Your task to perform on an android device: turn pop-ups off in chrome Image 0: 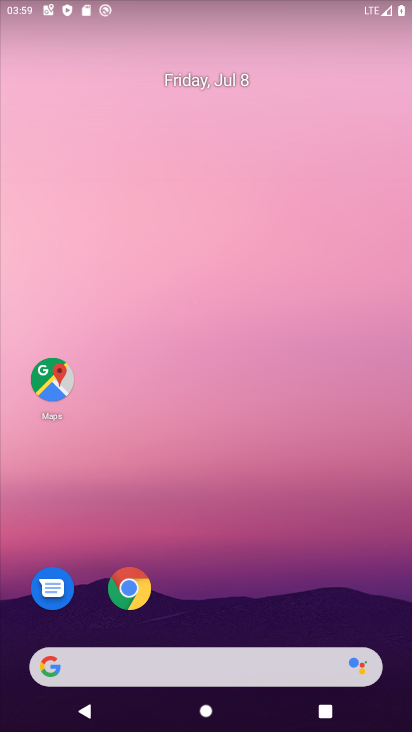
Step 0: drag from (176, 486) to (197, 83)
Your task to perform on an android device: turn pop-ups off in chrome Image 1: 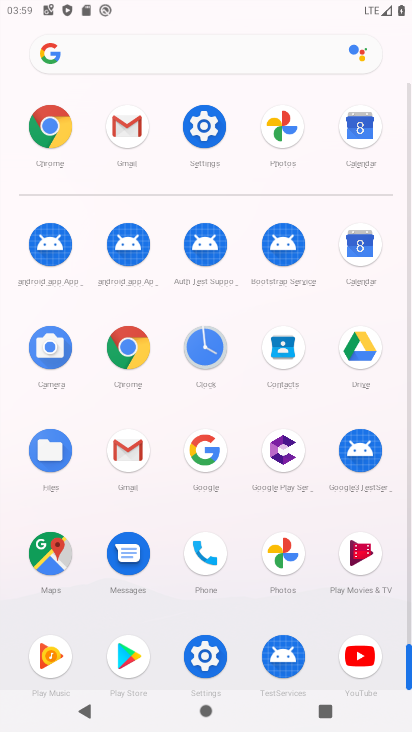
Step 1: click (134, 357)
Your task to perform on an android device: turn pop-ups off in chrome Image 2: 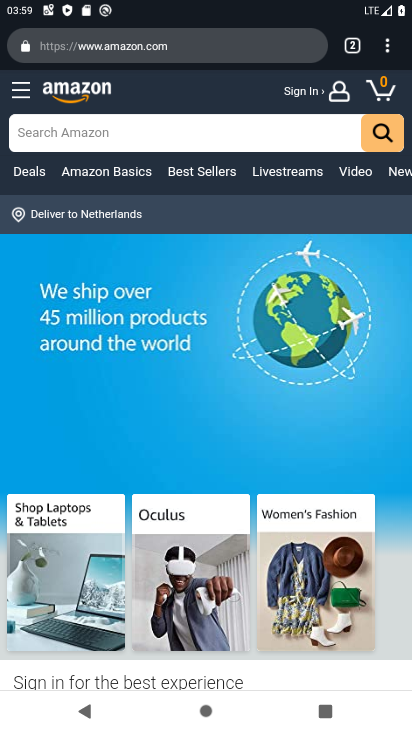
Step 2: click (388, 46)
Your task to perform on an android device: turn pop-ups off in chrome Image 3: 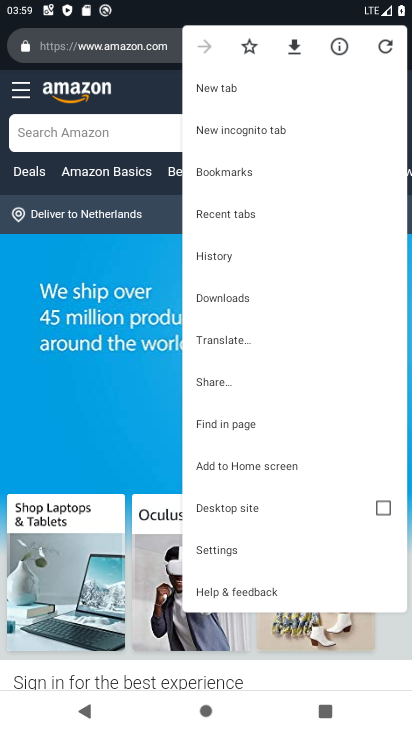
Step 3: click (234, 547)
Your task to perform on an android device: turn pop-ups off in chrome Image 4: 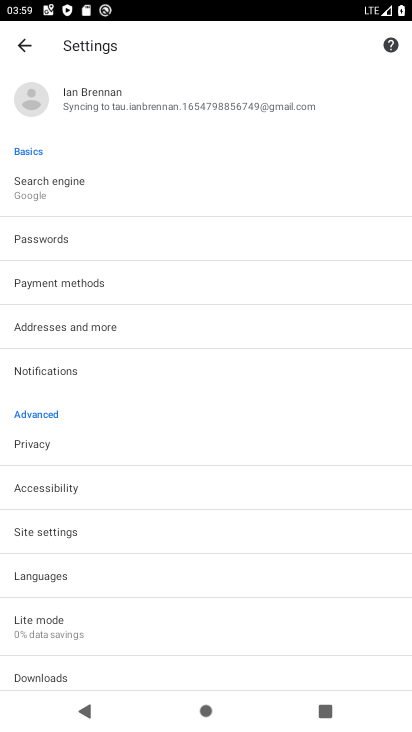
Step 4: click (61, 527)
Your task to perform on an android device: turn pop-ups off in chrome Image 5: 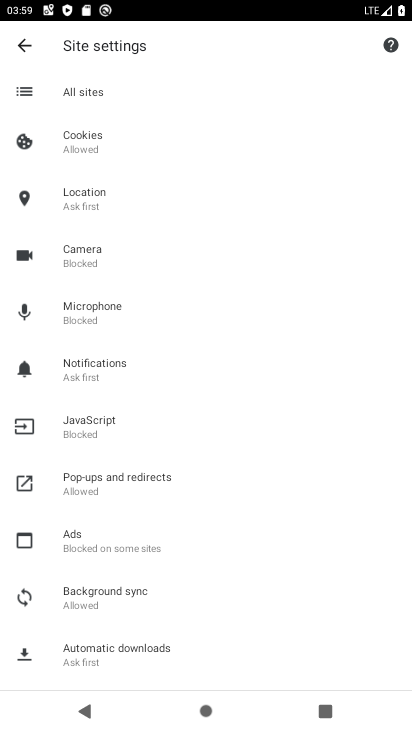
Step 5: click (93, 493)
Your task to perform on an android device: turn pop-ups off in chrome Image 6: 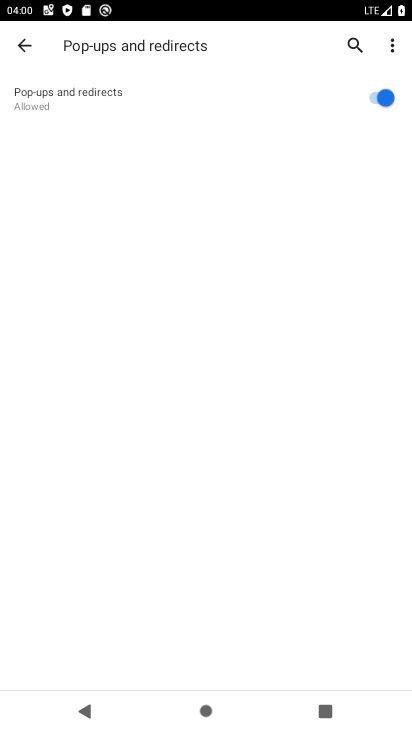
Step 6: click (381, 101)
Your task to perform on an android device: turn pop-ups off in chrome Image 7: 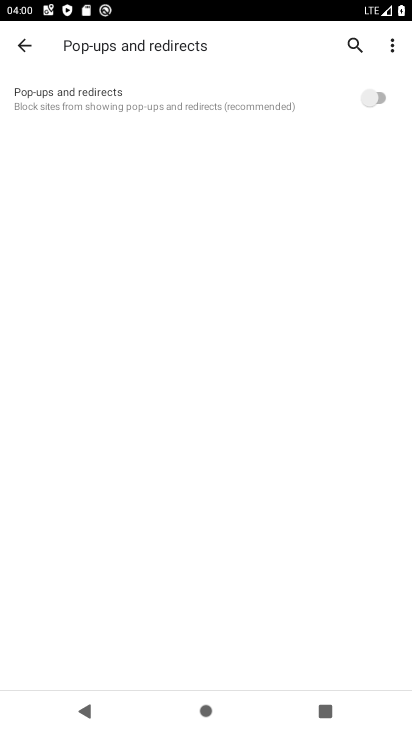
Step 7: task complete